Your task to perform on an android device: toggle translation in the chrome app Image 0: 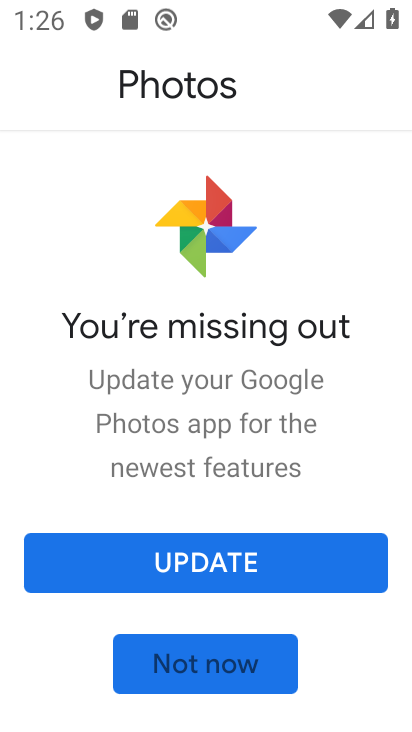
Step 0: press home button
Your task to perform on an android device: toggle translation in the chrome app Image 1: 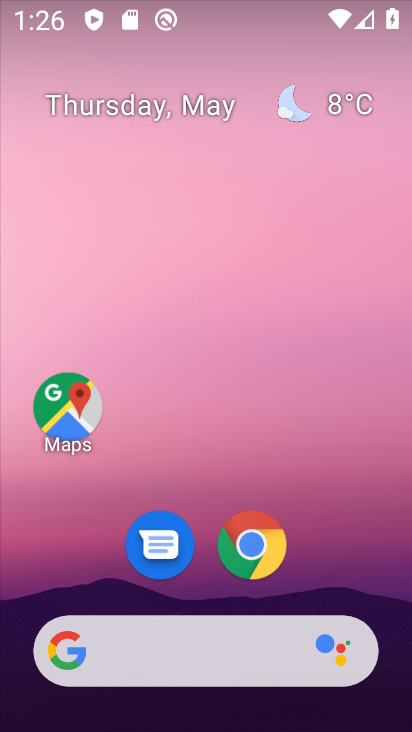
Step 1: click (248, 544)
Your task to perform on an android device: toggle translation in the chrome app Image 2: 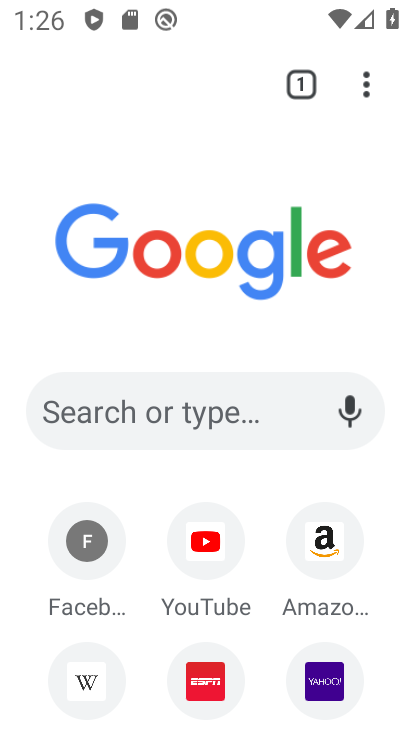
Step 2: click (363, 86)
Your task to perform on an android device: toggle translation in the chrome app Image 3: 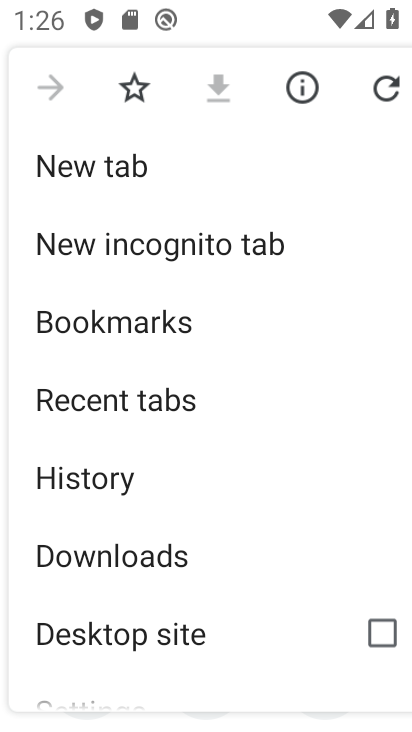
Step 3: drag from (248, 546) to (316, 178)
Your task to perform on an android device: toggle translation in the chrome app Image 4: 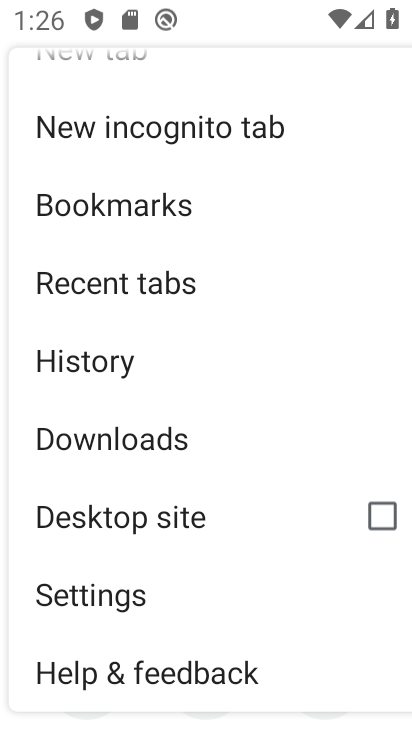
Step 4: click (115, 588)
Your task to perform on an android device: toggle translation in the chrome app Image 5: 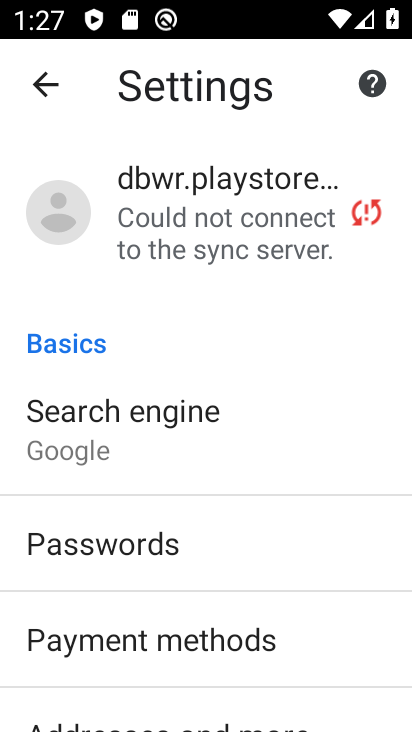
Step 5: drag from (298, 671) to (325, 388)
Your task to perform on an android device: toggle translation in the chrome app Image 6: 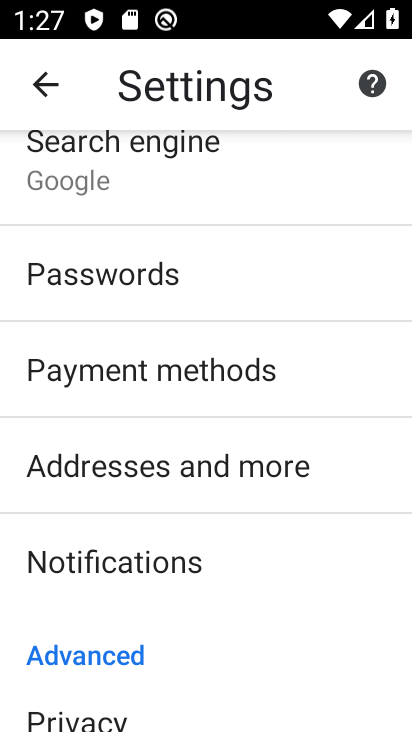
Step 6: drag from (279, 676) to (329, 210)
Your task to perform on an android device: toggle translation in the chrome app Image 7: 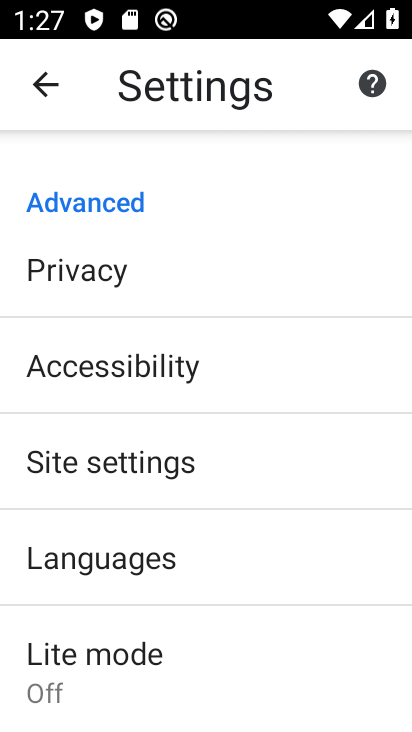
Step 7: click (96, 560)
Your task to perform on an android device: toggle translation in the chrome app Image 8: 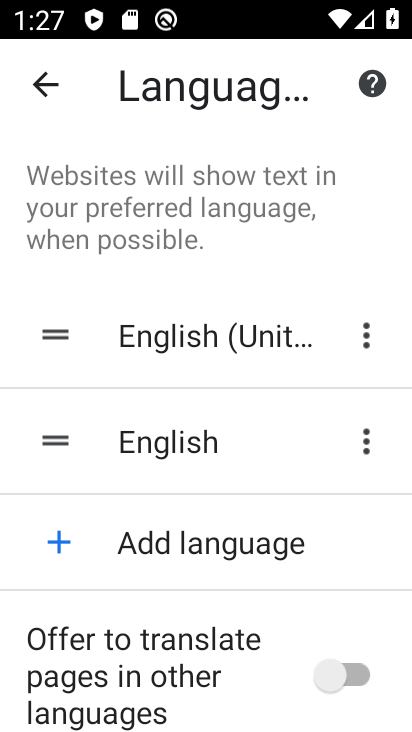
Step 8: click (348, 666)
Your task to perform on an android device: toggle translation in the chrome app Image 9: 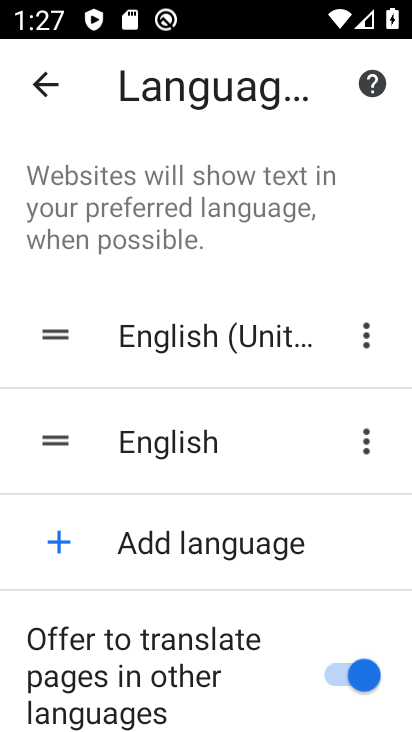
Step 9: task complete